Your task to perform on an android device: What's on my calendar tomorrow? Image 0: 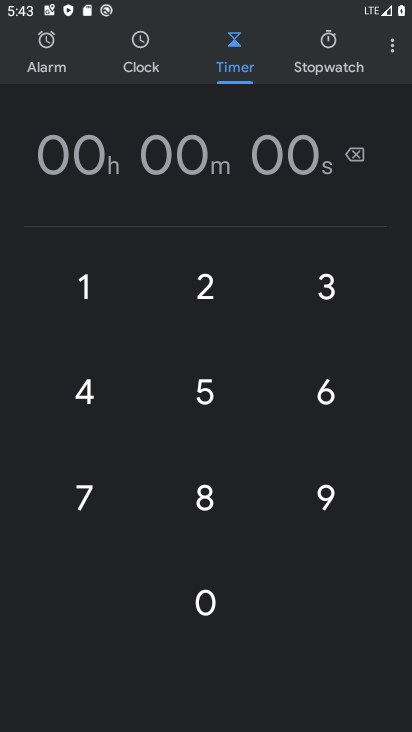
Step 0: press home button
Your task to perform on an android device: What's on my calendar tomorrow? Image 1: 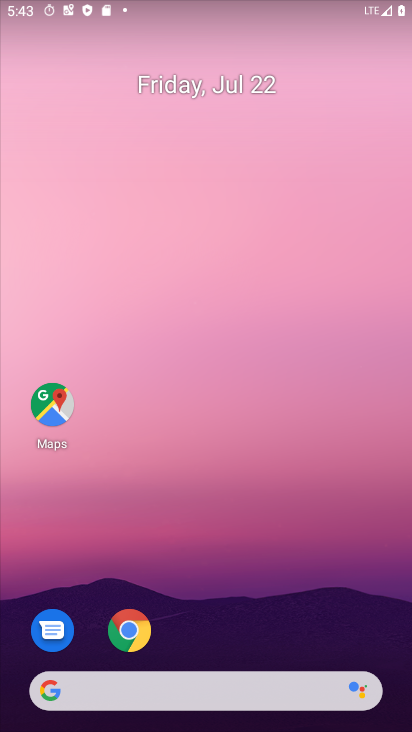
Step 1: drag from (264, 605) to (282, 0)
Your task to perform on an android device: What's on my calendar tomorrow? Image 2: 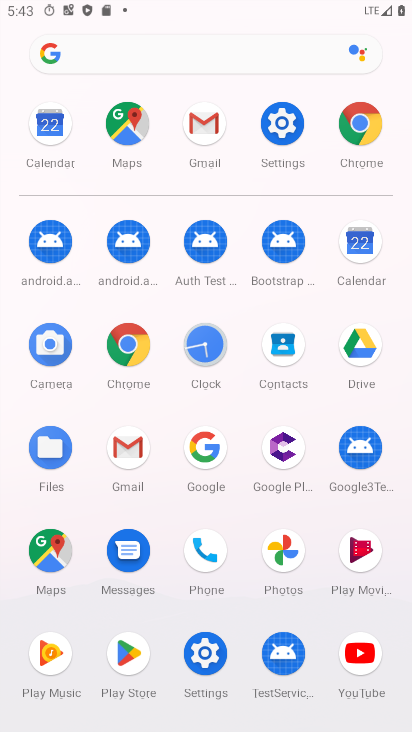
Step 2: click (356, 250)
Your task to perform on an android device: What's on my calendar tomorrow? Image 3: 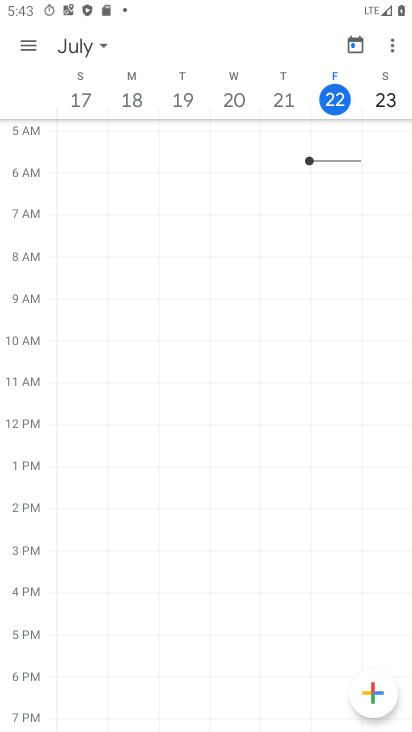
Step 3: click (103, 47)
Your task to perform on an android device: What's on my calendar tomorrow? Image 4: 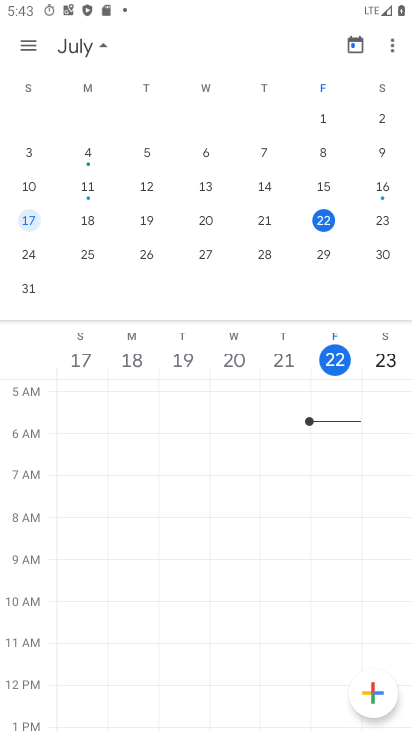
Step 4: click (380, 215)
Your task to perform on an android device: What's on my calendar tomorrow? Image 5: 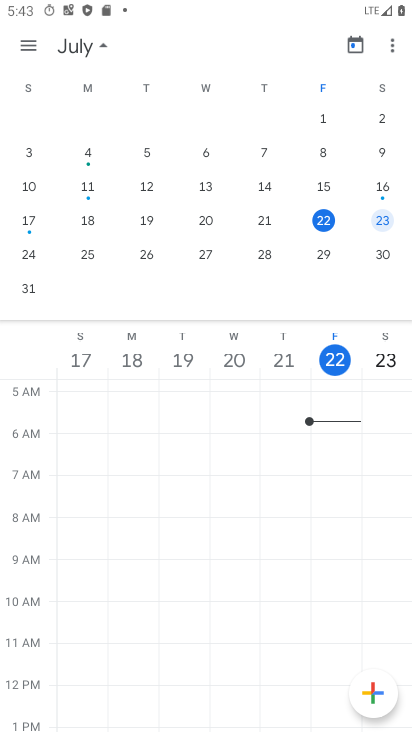
Step 5: task complete